Your task to perform on an android device: toggle notification dots Image 0: 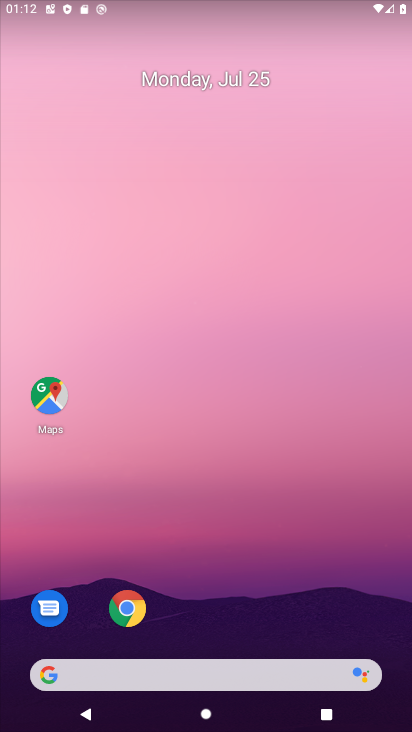
Step 0: drag from (182, 636) to (170, 0)
Your task to perform on an android device: toggle notification dots Image 1: 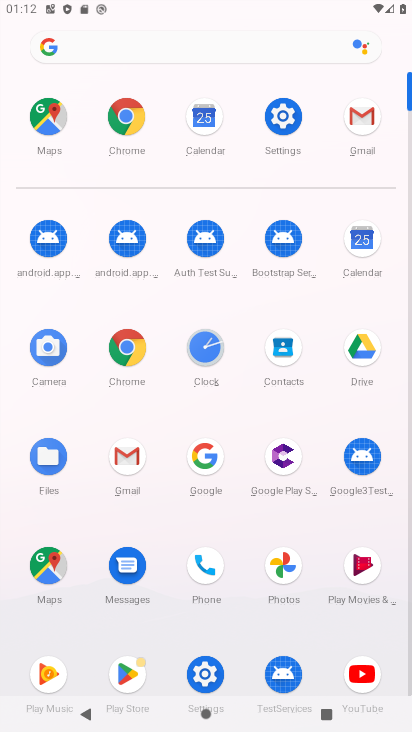
Step 1: click (283, 120)
Your task to perform on an android device: toggle notification dots Image 2: 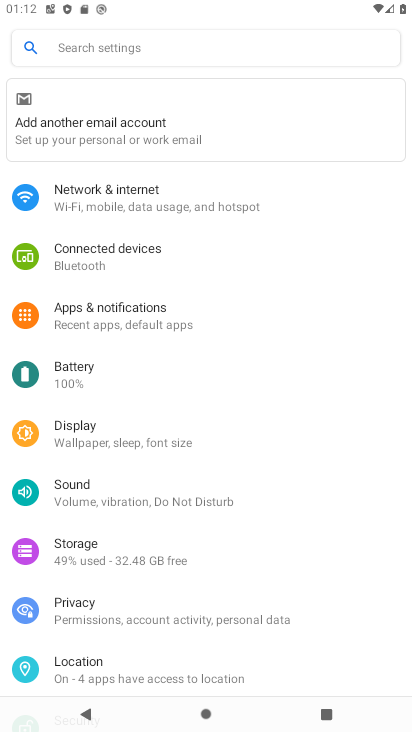
Step 2: click (159, 327)
Your task to perform on an android device: toggle notification dots Image 3: 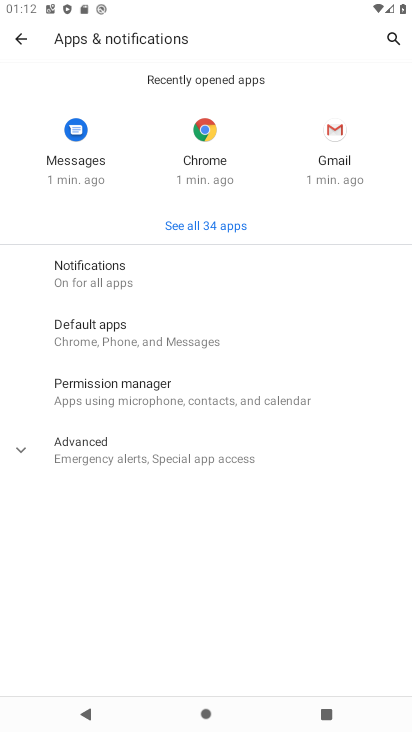
Step 3: click (83, 262)
Your task to perform on an android device: toggle notification dots Image 4: 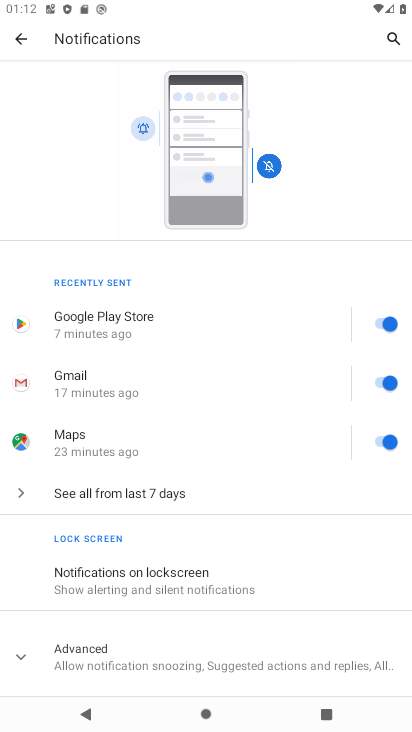
Step 4: click (176, 654)
Your task to perform on an android device: toggle notification dots Image 5: 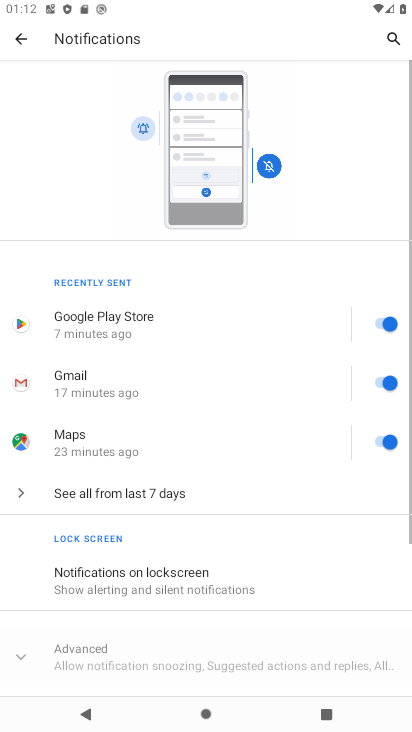
Step 5: drag from (171, 654) to (113, 195)
Your task to perform on an android device: toggle notification dots Image 6: 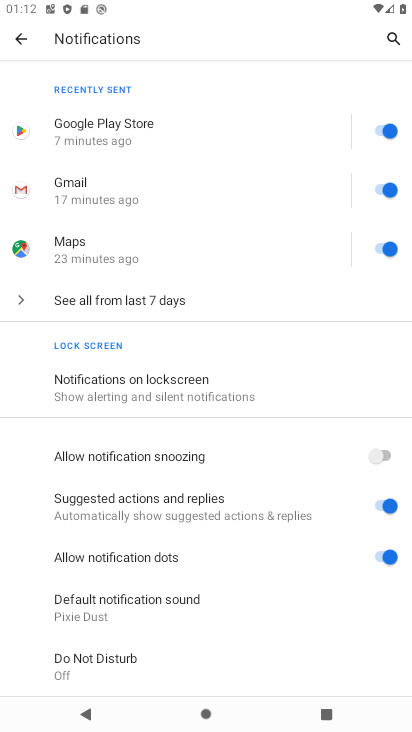
Step 6: click (392, 558)
Your task to perform on an android device: toggle notification dots Image 7: 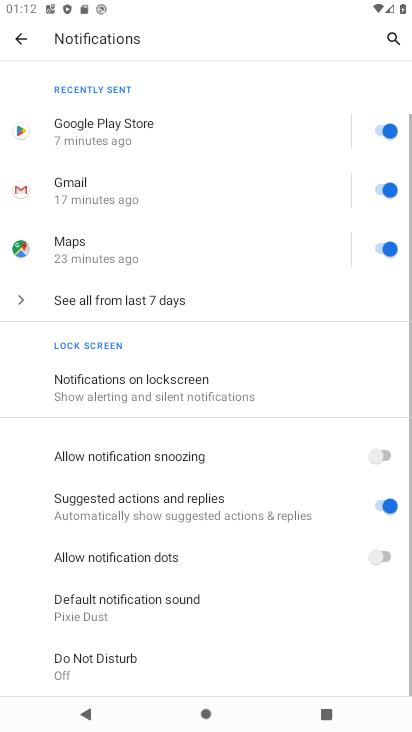
Step 7: task complete